Your task to perform on an android device: Open settings on Google Maps Image 0: 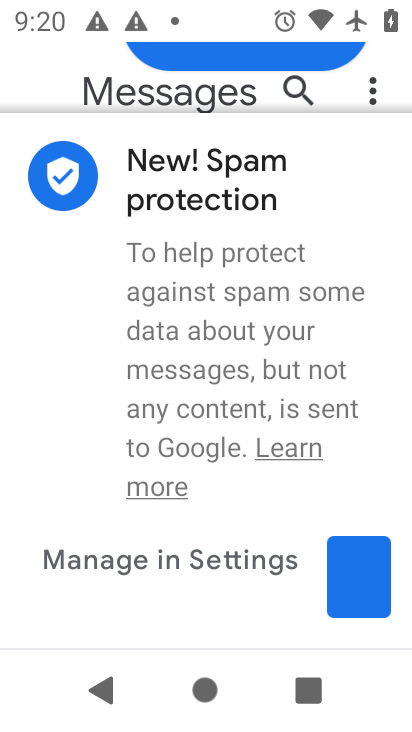
Step 0: press home button
Your task to perform on an android device: Open settings on Google Maps Image 1: 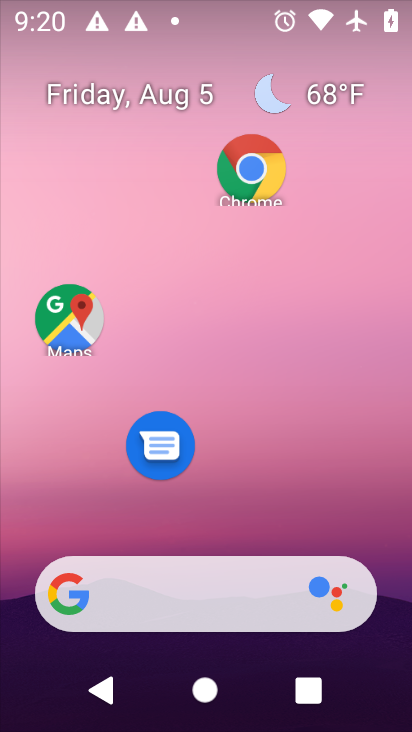
Step 1: click (73, 332)
Your task to perform on an android device: Open settings on Google Maps Image 2: 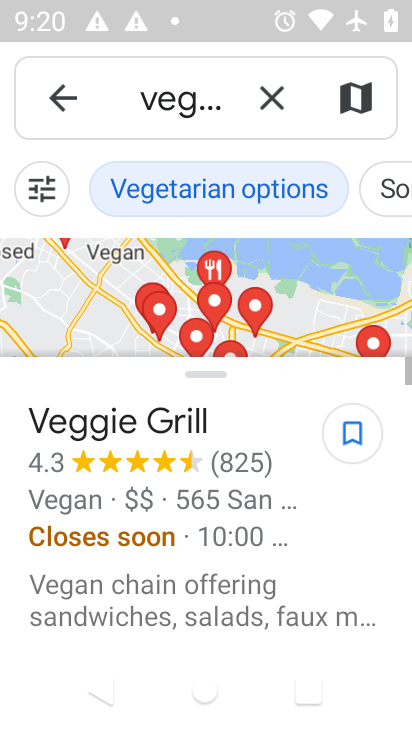
Step 2: click (62, 87)
Your task to perform on an android device: Open settings on Google Maps Image 3: 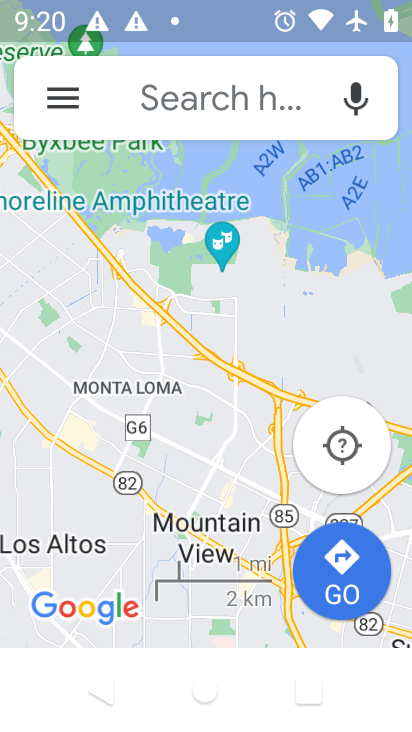
Step 3: click (72, 105)
Your task to perform on an android device: Open settings on Google Maps Image 4: 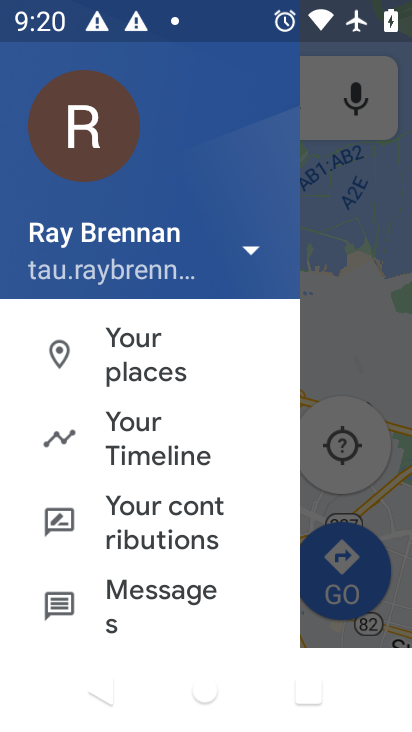
Step 4: drag from (157, 605) to (133, 247)
Your task to perform on an android device: Open settings on Google Maps Image 5: 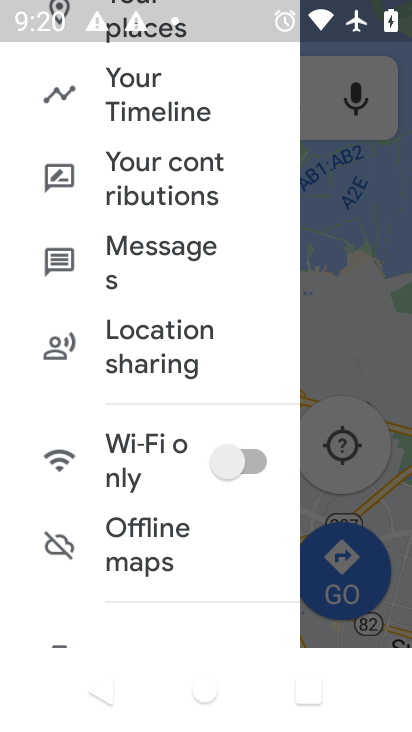
Step 5: drag from (139, 538) to (154, 206)
Your task to perform on an android device: Open settings on Google Maps Image 6: 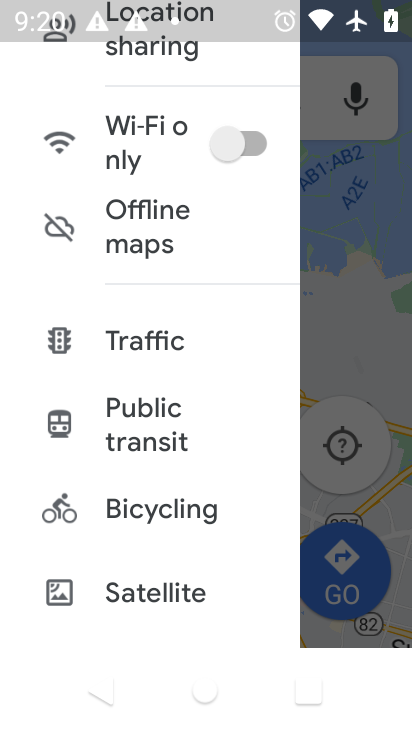
Step 6: drag from (153, 555) to (156, 219)
Your task to perform on an android device: Open settings on Google Maps Image 7: 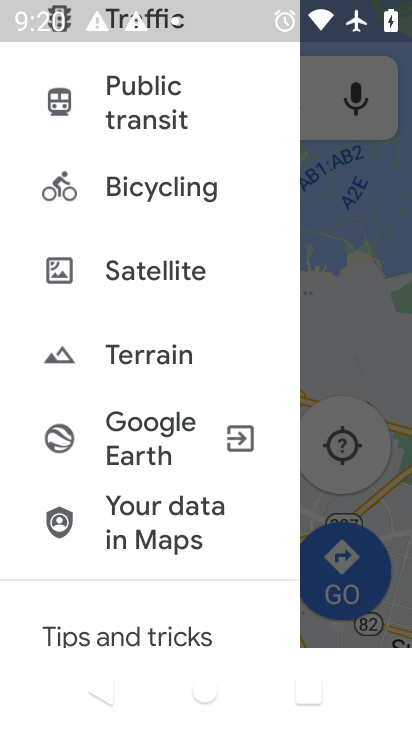
Step 7: drag from (152, 565) to (158, 266)
Your task to perform on an android device: Open settings on Google Maps Image 8: 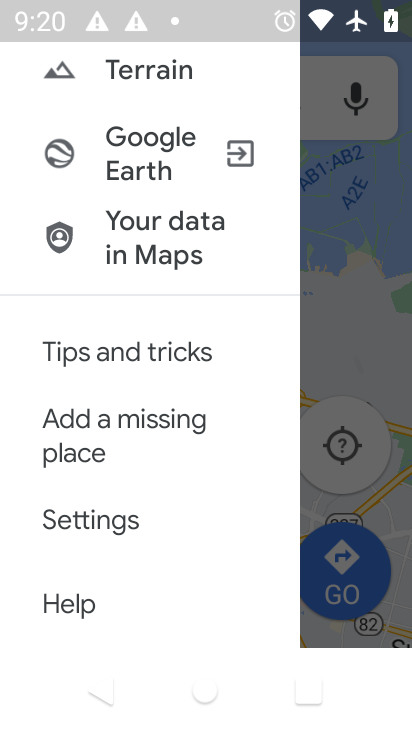
Step 8: click (94, 531)
Your task to perform on an android device: Open settings on Google Maps Image 9: 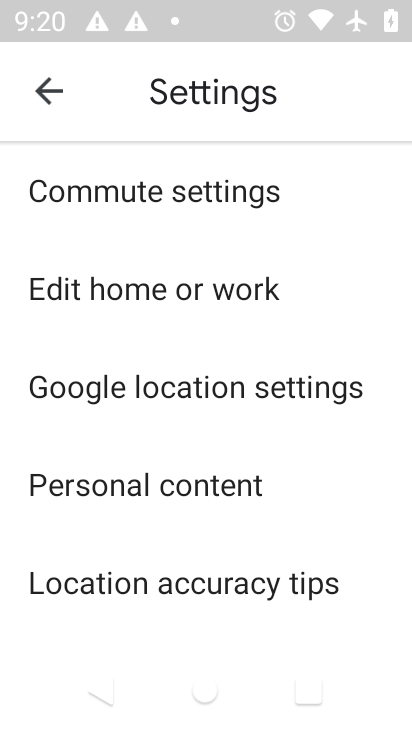
Step 9: task complete